Your task to perform on an android device: Open the Play Movies app and select the watchlist tab. Image 0: 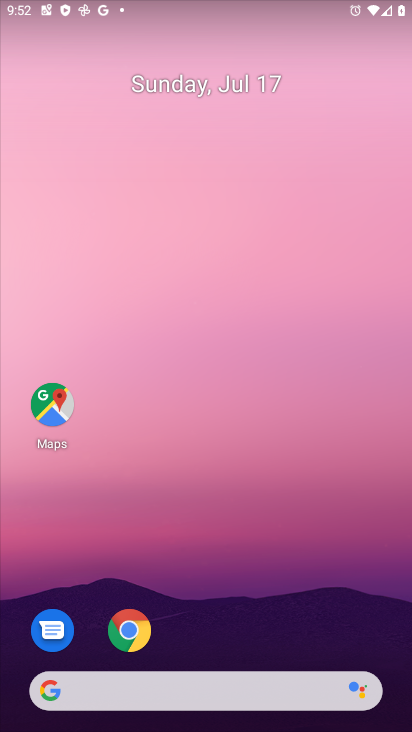
Step 0: drag from (163, 636) to (176, 258)
Your task to perform on an android device: Open the Play Movies app and select the watchlist tab. Image 1: 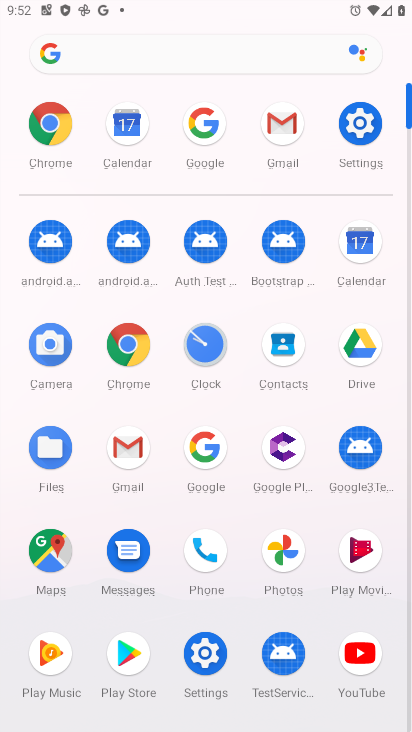
Step 1: click (357, 545)
Your task to perform on an android device: Open the Play Movies app and select the watchlist tab. Image 2: 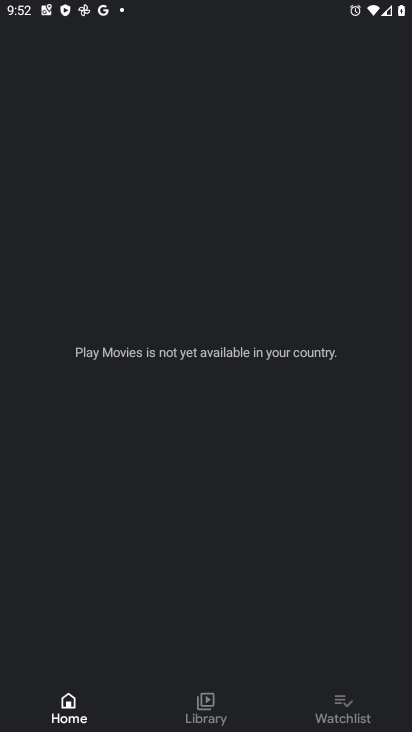
Step 2: click (345, 709)
Your task to perform on an android device: Open the Play Movies app and select the watchlist tab. Image 3: 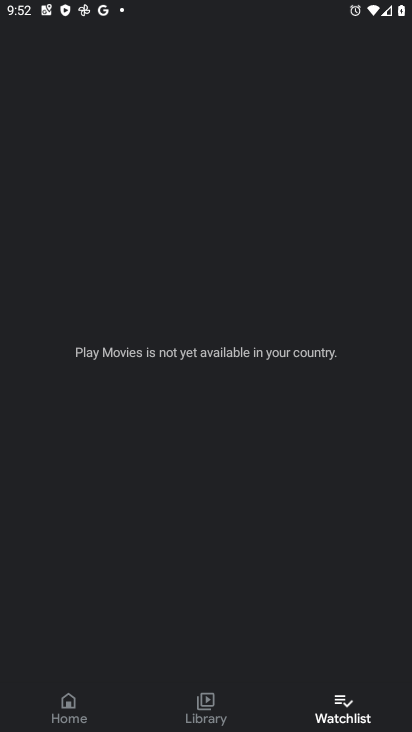
Step 3: task complete